Your task to perform on an android device: Open the calendar and show me this week's events Image 0: 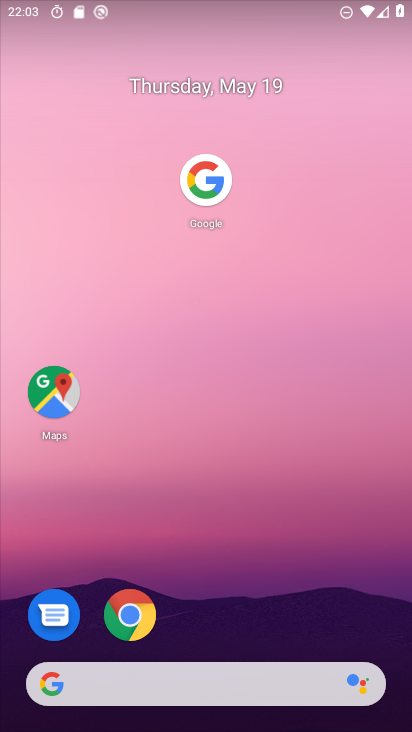
Step 0: drag from (250, 576) to (243, 63)
Your task to perform on an android device: Open the calendar and show me this week's events Image 1: 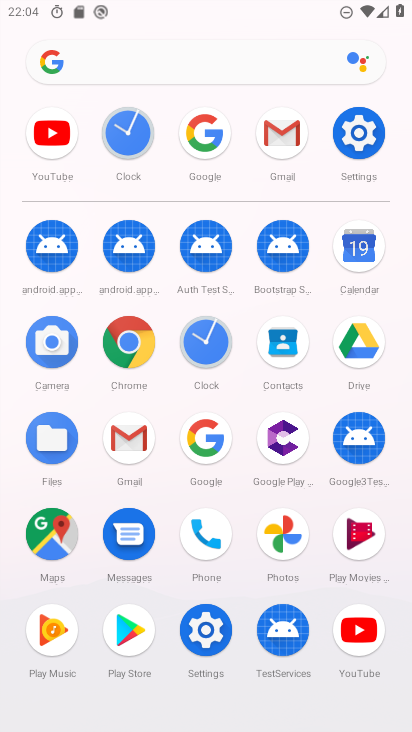
Step 1: click (355, 250)
Your task to perform on an android device: Open the calendar and show me this week's events Image 2: 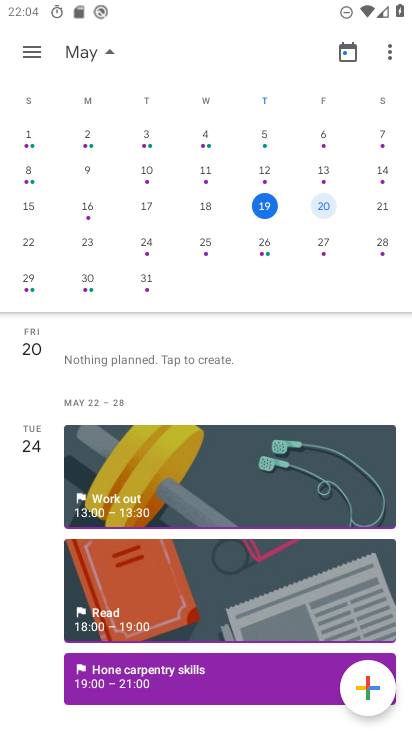
Step 2: click (327, 206)
Your task to perform on an android device: Open the calendar and show me this week's events Image 3: 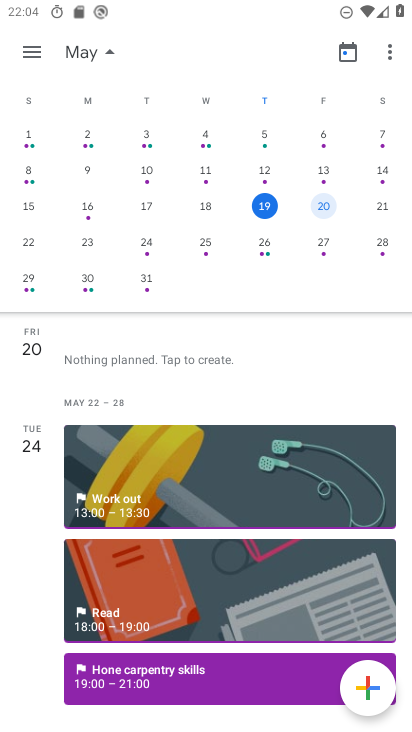
Step 3: task complete